Your task to perform on an android device: Go to wifi settings Image 0: 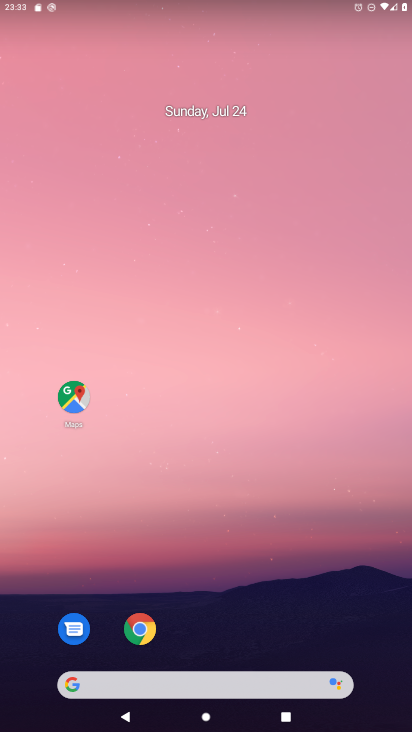
Step 0: drag from (190, 630) to (211, 173)
Your task to perform on an android device: Go to wifi settings Image 1: 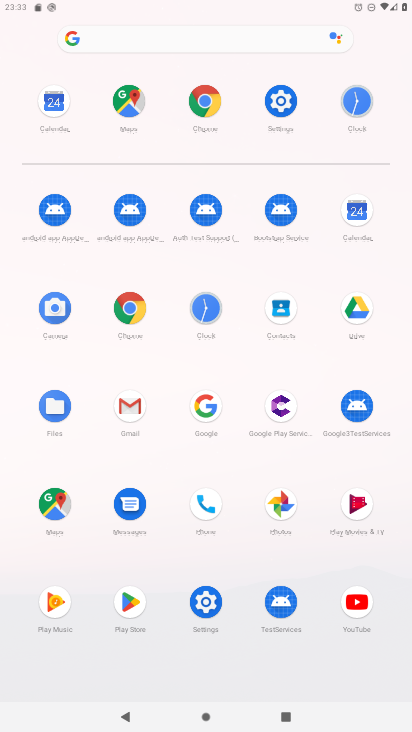
Step 1: click (201, 604)
Your task to perform on an android device: Go to wifi settings Image 2: 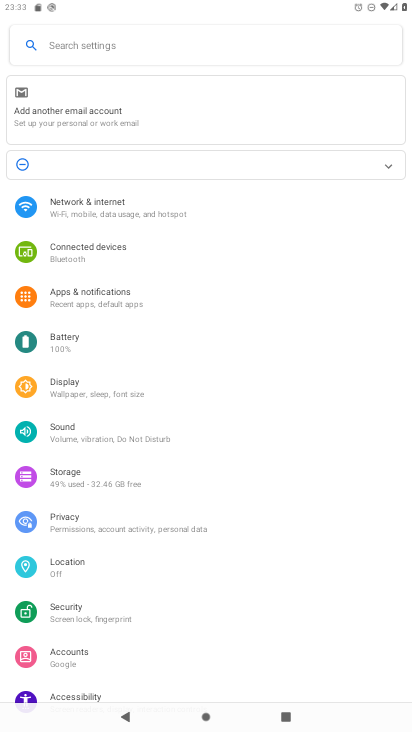
Step 2: click (86, 201)
Your task to perform on an android device: Go to wifi settings Image 3: 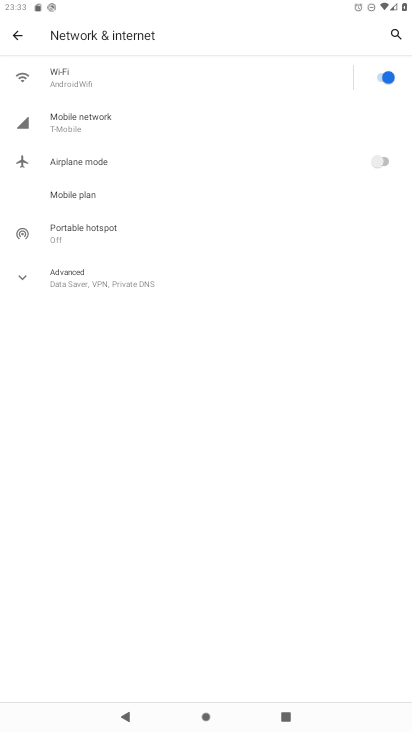
Step 3: click (148, 85)
Your task to perform on an android device: Go to wifi settings Image 4: 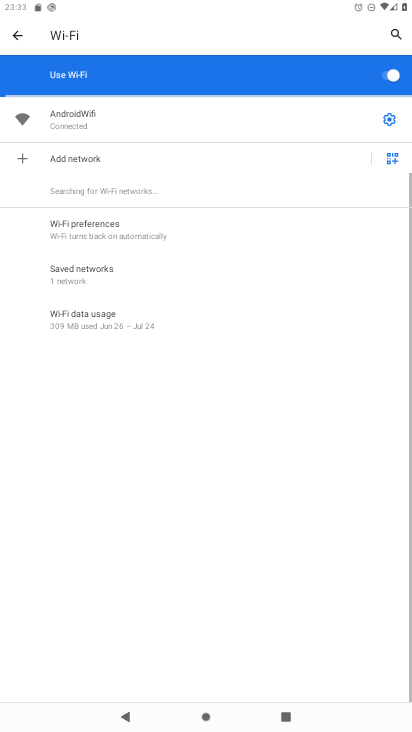
Step 4: click (387, 118)
Your task to perform on an android device: Go to wifi settings Image 5: 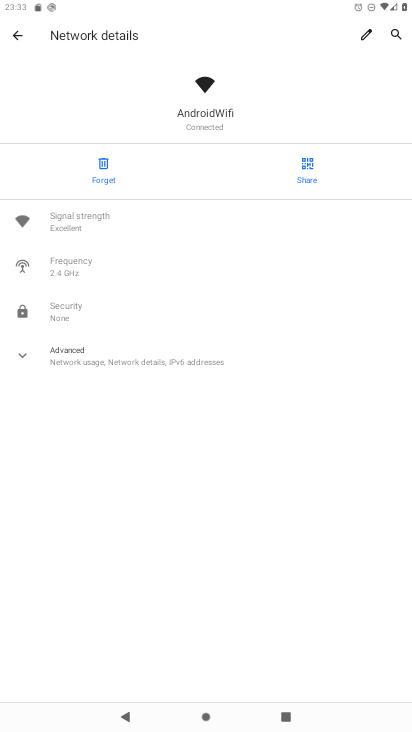
Step 5: task complete